Your task to perform on an android device: Empty the shopping cart on costco. Add razer thresher to the cart on costco Image 0: 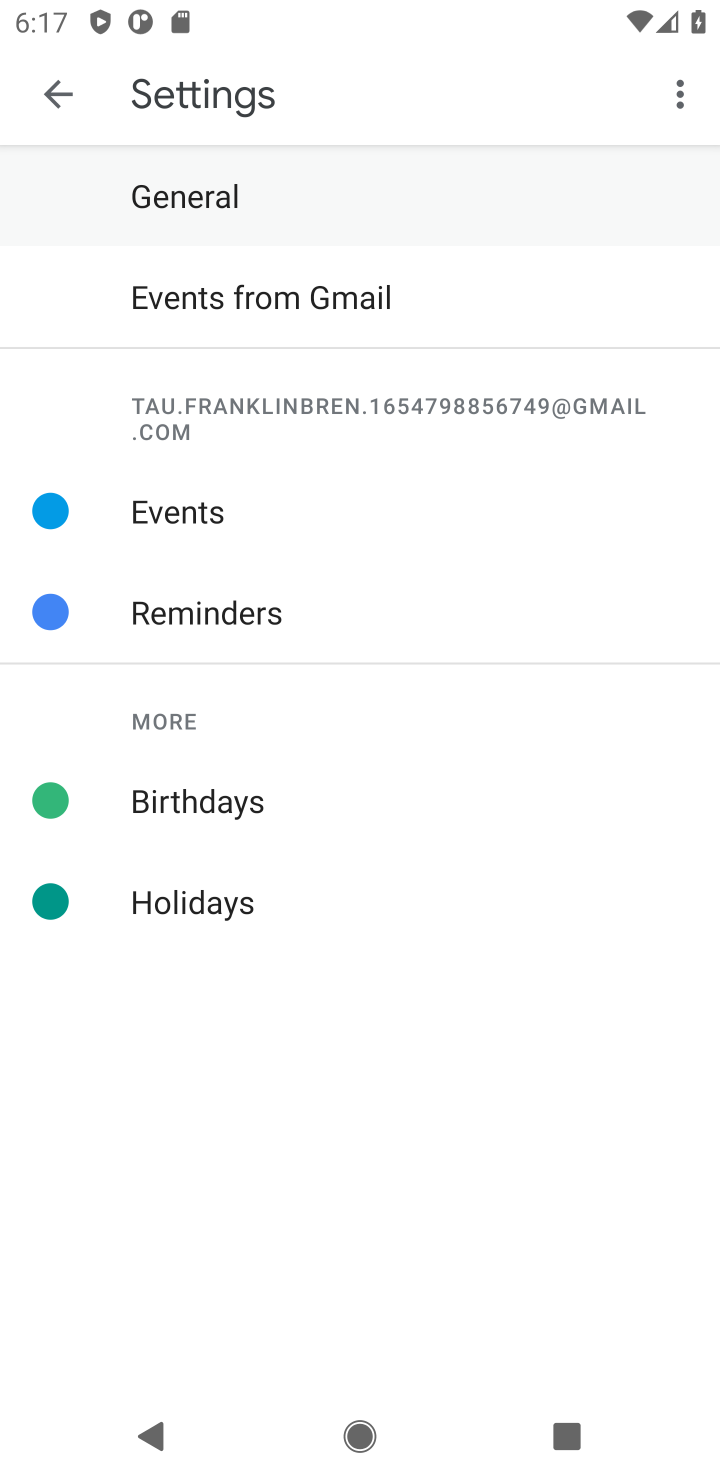
Step 0: press home button
Your task to perform on an android device: Empty the shopping cart on costco. Add razer thresher to the cart on costco Image 1: 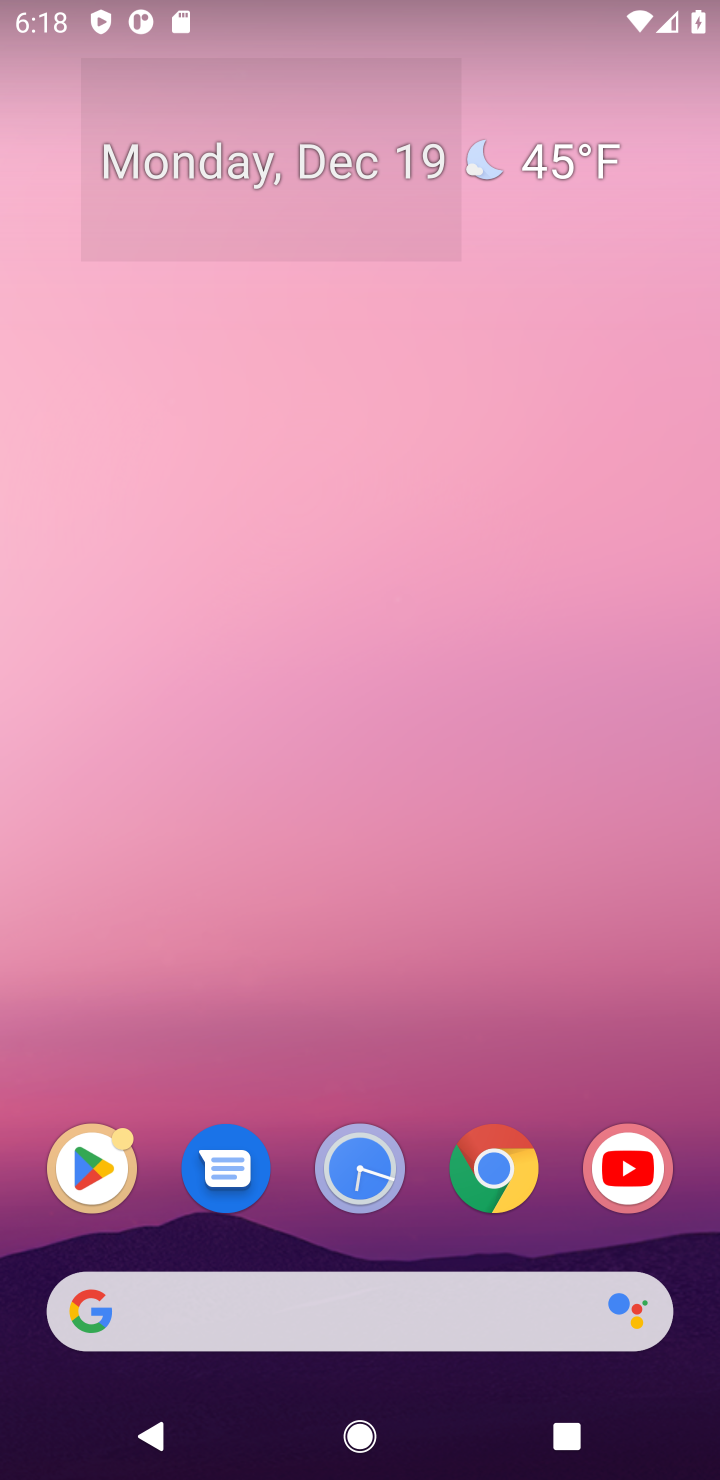
Step 1: click (483, 1198)
Your task to perform on an android device: Empty the shopping cart on costco. Add razer thresher to the cart on costco Image 2: 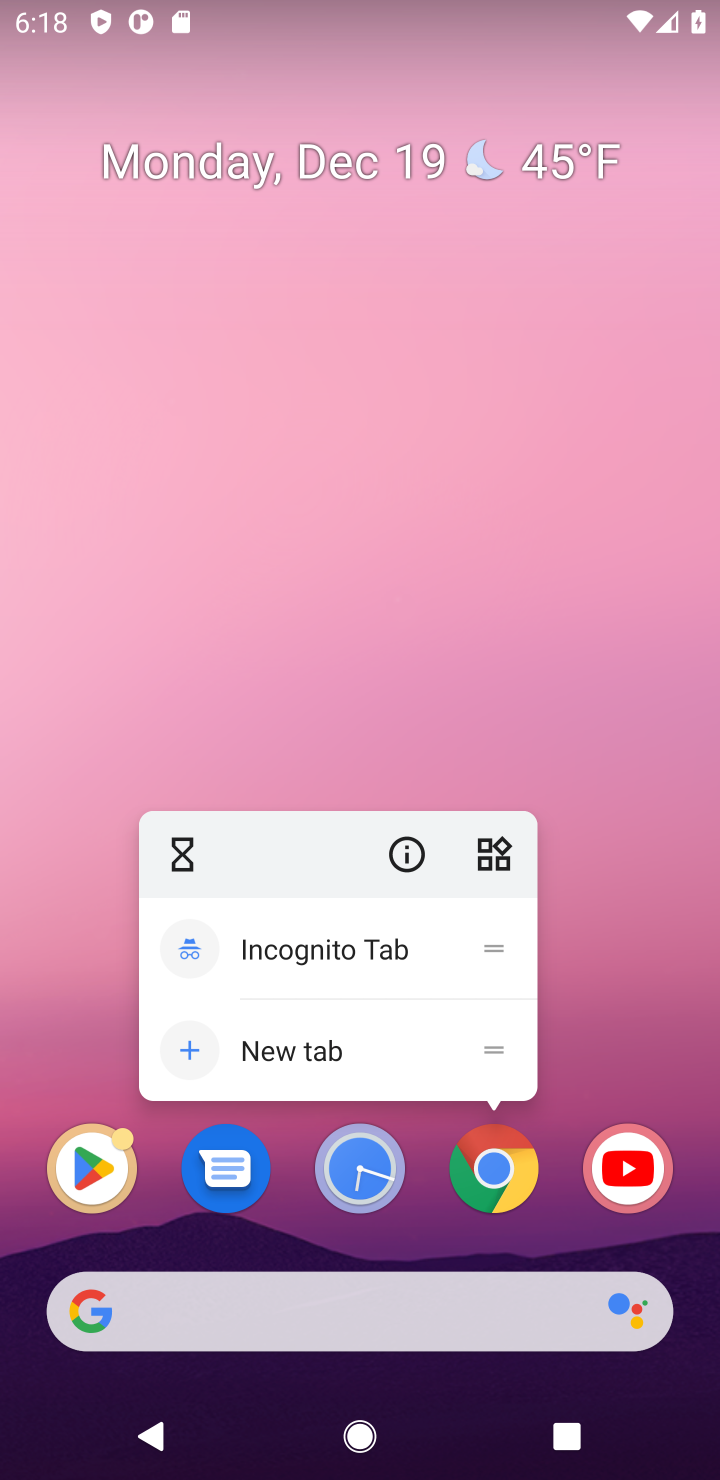
Step 2: click (493, 1187)
Your task to perform on an android device: Empty the shopping cart on costco. Add razer thresher to the cart on costco Image 3: 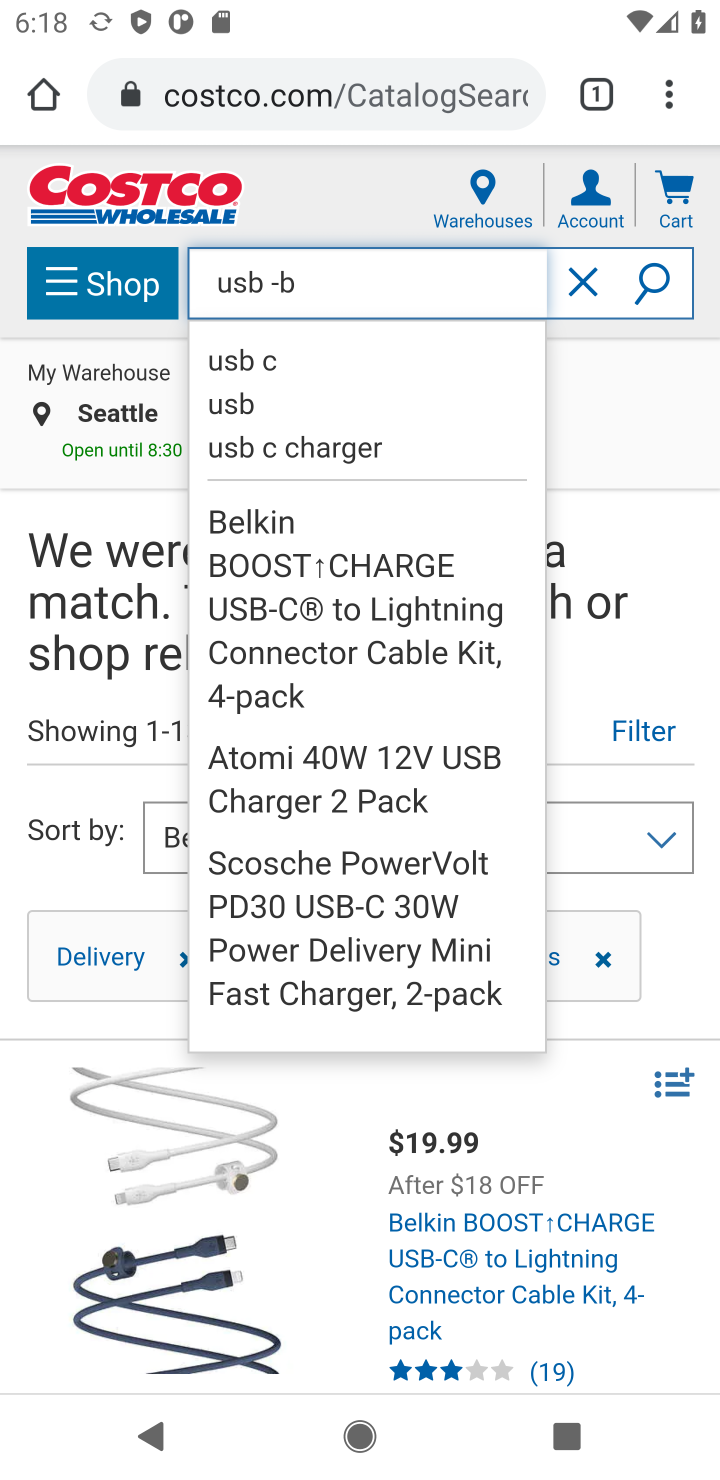
Step 3: click (670, 216)
Your task to perform on an android device: Empty the shopping cart on costco. Add razer thresher to the cart on costco Image 4: 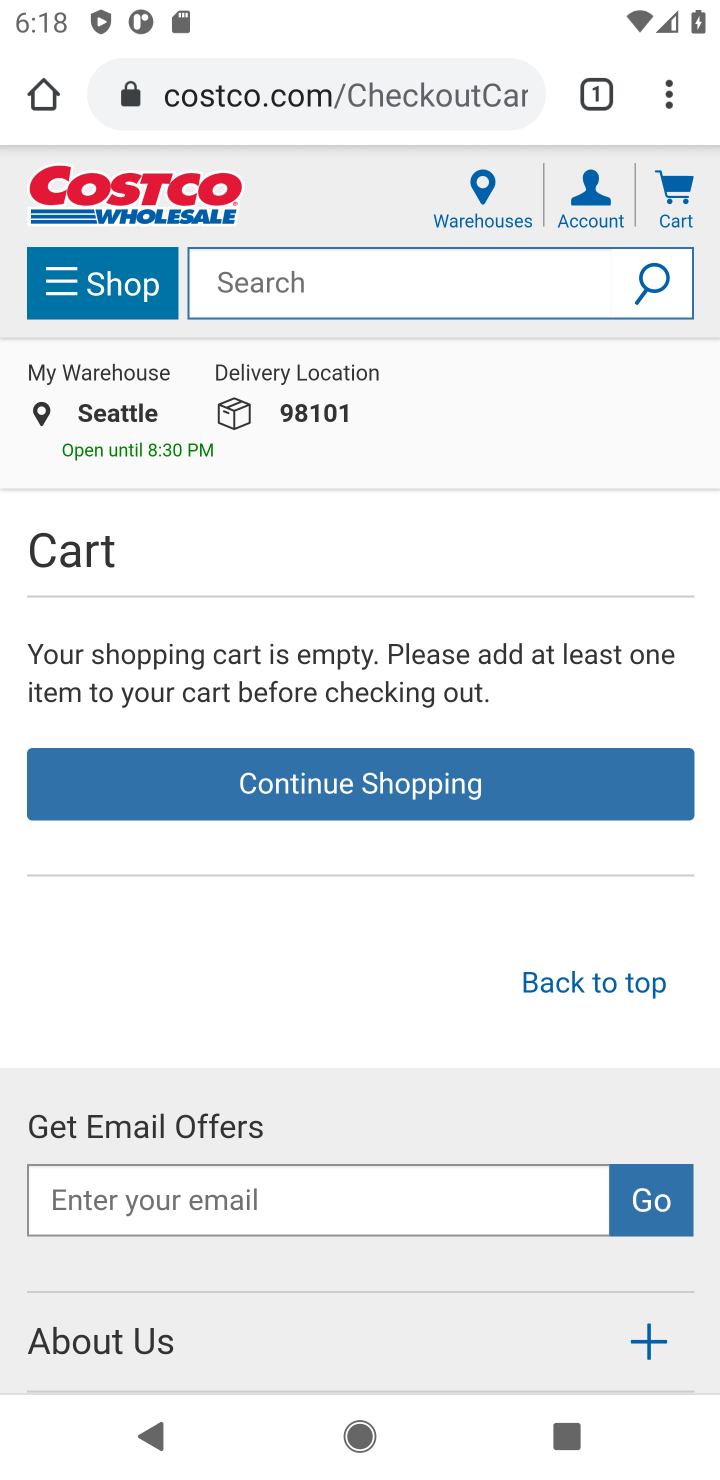
Step 4: click (292, 291)
Your task to perform on an android device: Empty the shopping cart on costco. Add razer thresher to the cart on costco Image 5: 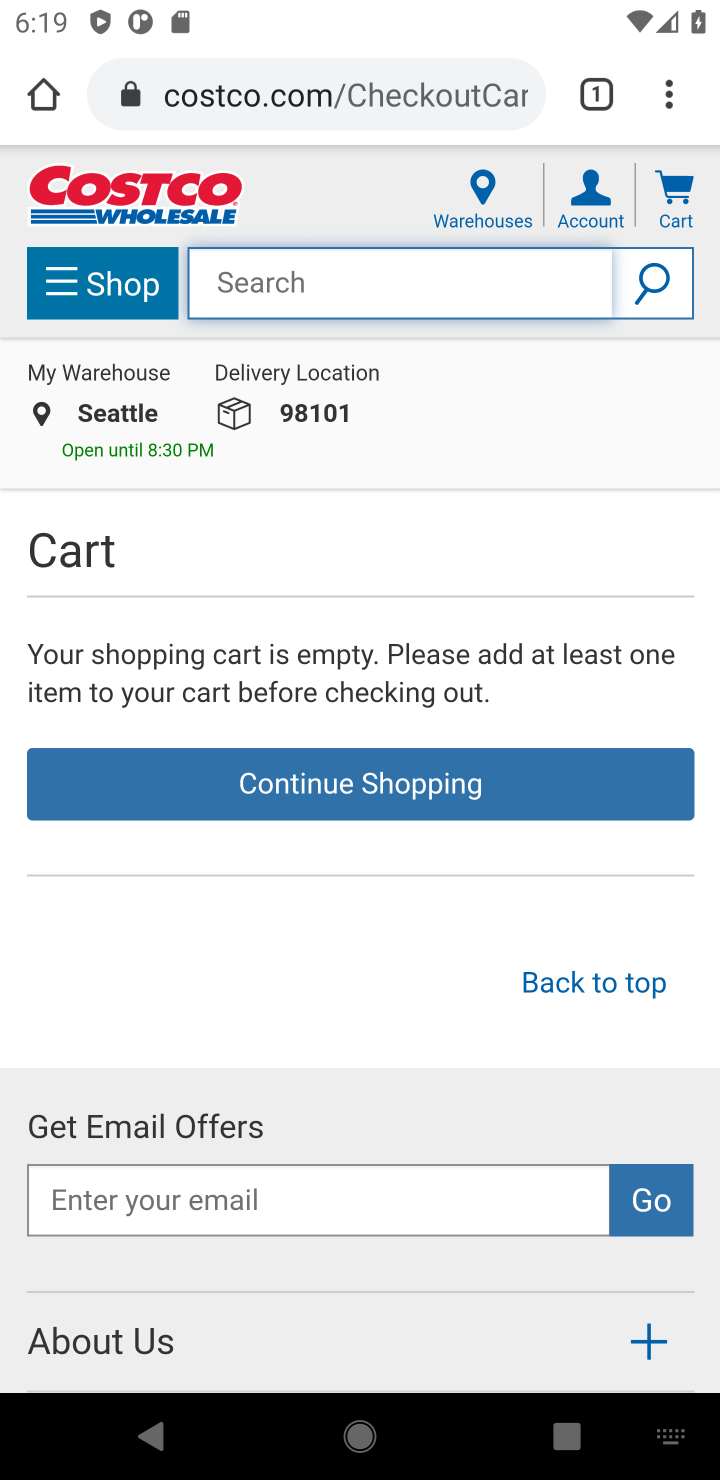
Step 5: type "razer thresher"
Your task to perform on an android device: Empty the shopping cart on costco. Add razer thresher to the cart on costco Image 6: 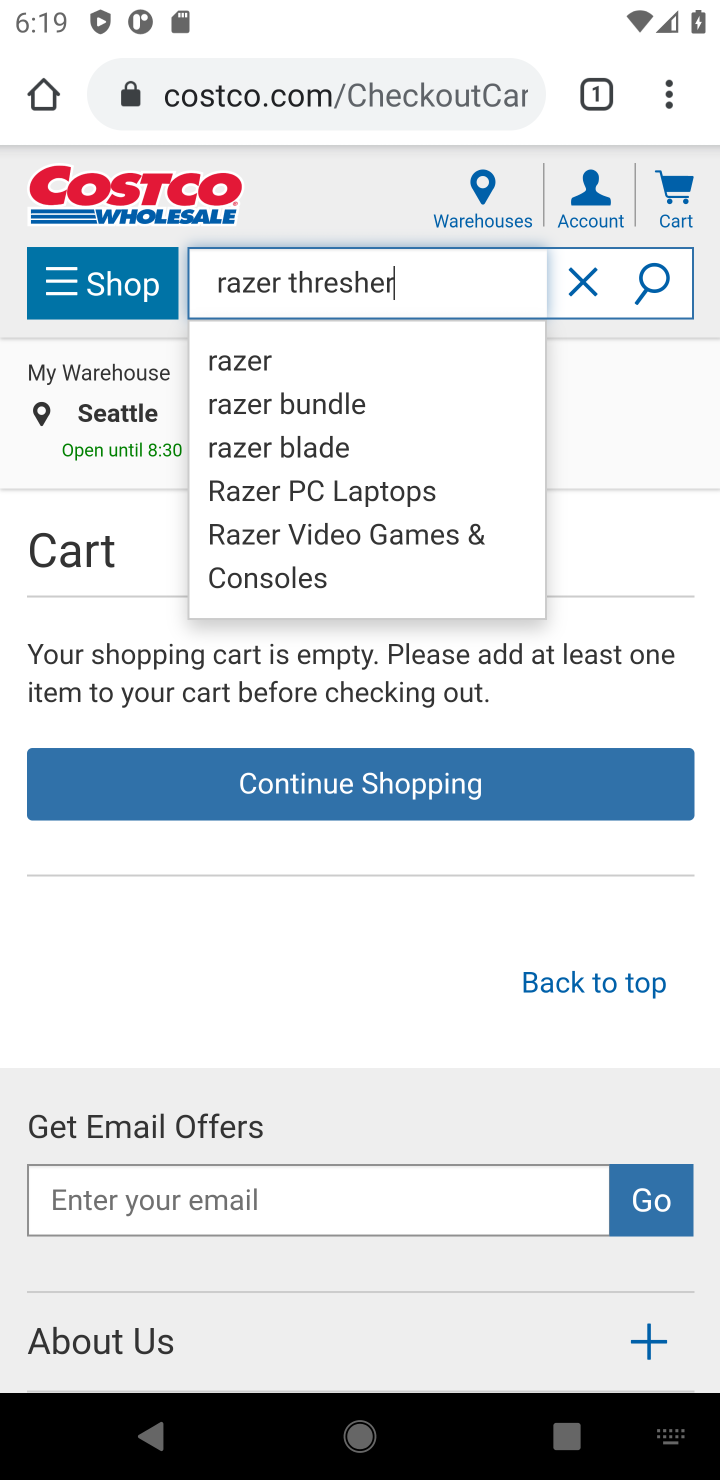
Step 6: click (652, 281)
Your task to perform on an android device: Empty the shopping cart on costco. Add razer thresher to the cart on costco Image 7: 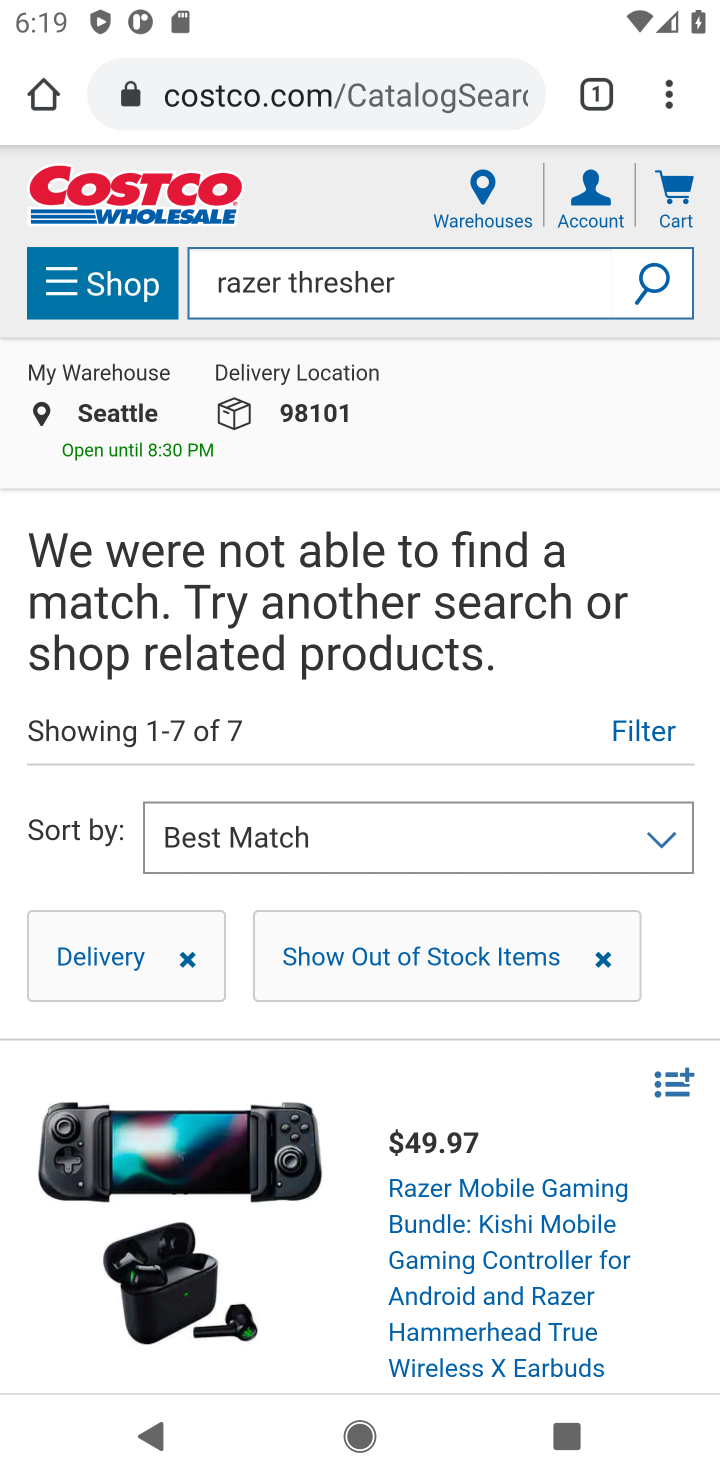
Step 7: task complete